Your task to perform on an android device: turn off wifi Image 0: 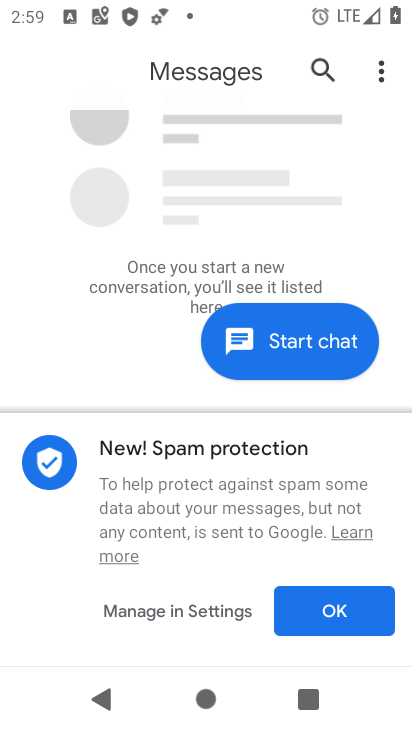
Step 0: press home button
Your task to perform on an android device: turn off wifi Image 1: 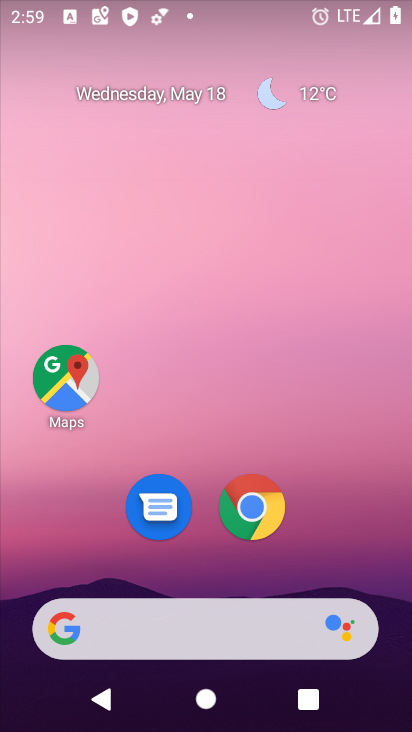
Step 1: drag from (395, 624) to (278, 62)
Your task to perform on an android device: turn off wifi Image 2: 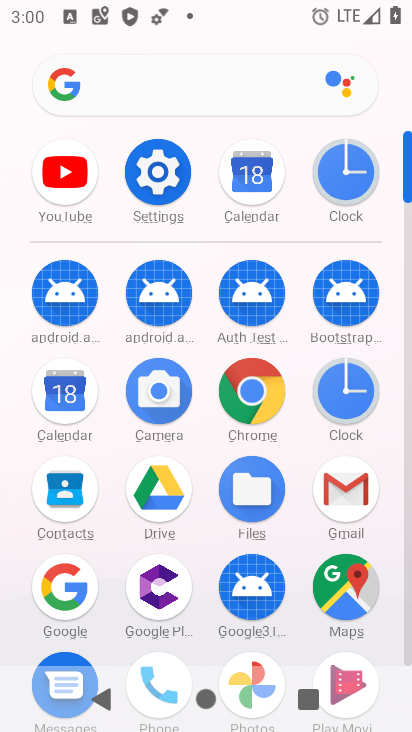
Step 2: click (408, 656)
Your task to perform on an android device: turn off wifi Image 3: 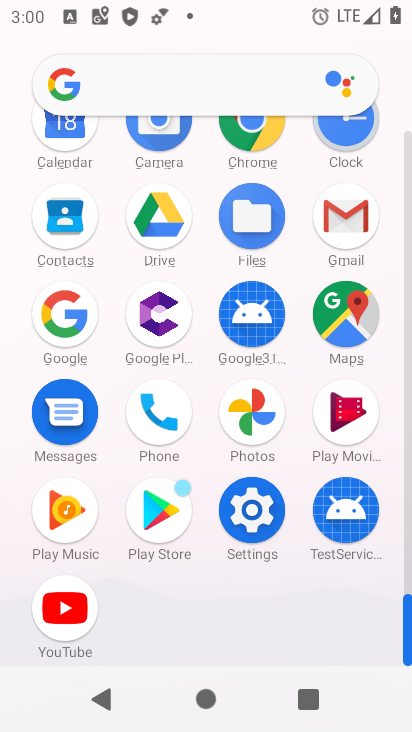
Step 3: click (248, 504)
Your task to perform on an android device: turn off wifi Image 4: 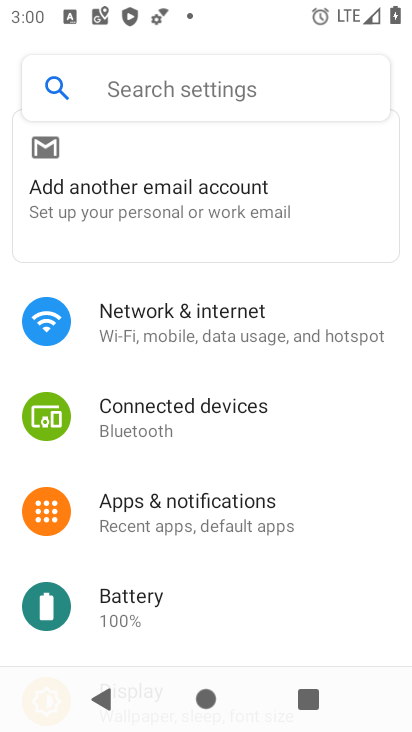
Step 4: click (156, 312)
Your task to perform on an android device: turn off wifi Image 5: 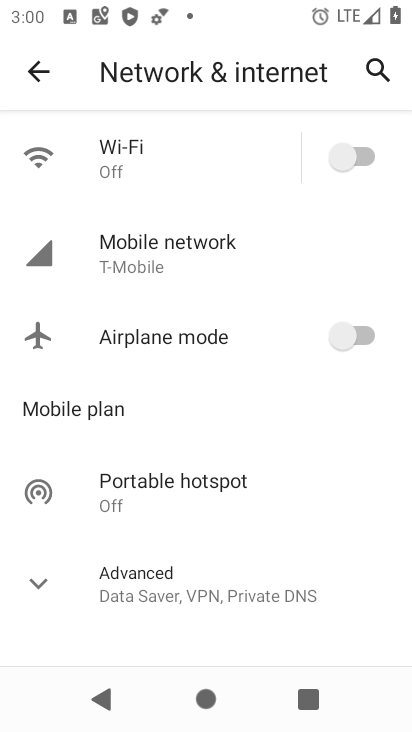
Step 5: task complete